Your task to perform on an android device: change alarm snooze length Image 0: 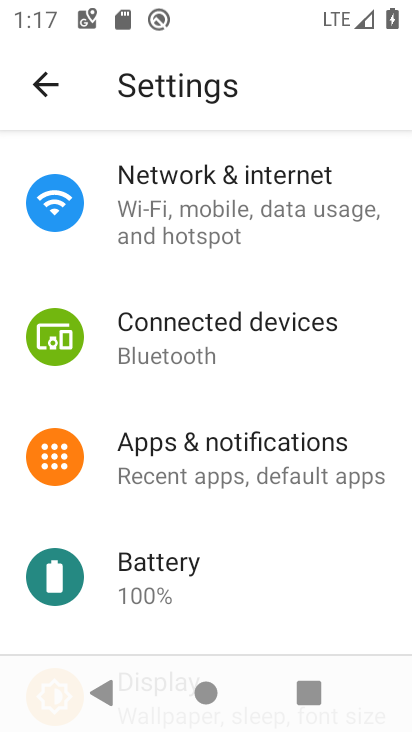
Step 0: press home button
Your task to perform on an android device: change alarm snooze length Image 1: 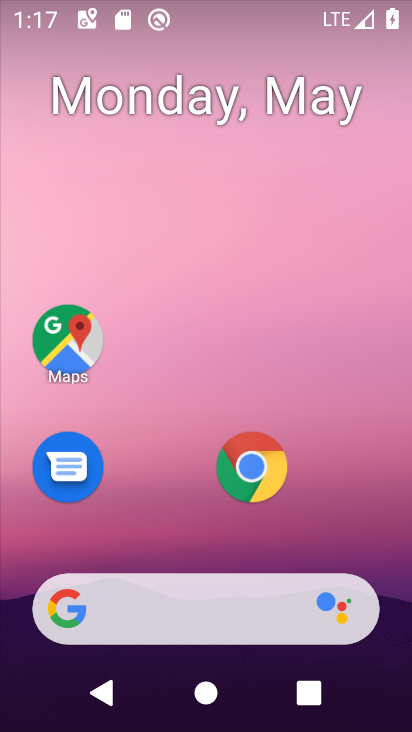
Step 1: drag from (187, 515) to (85, 21)
Your task to perform on an android device: change alarm snooze length Image 2: 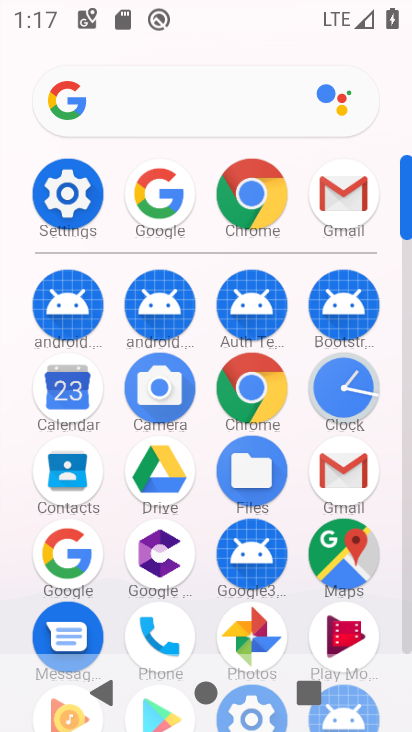
Step 2: click (336, 397)
Your task to perform on an android device: change alarm snooze length Image 3: 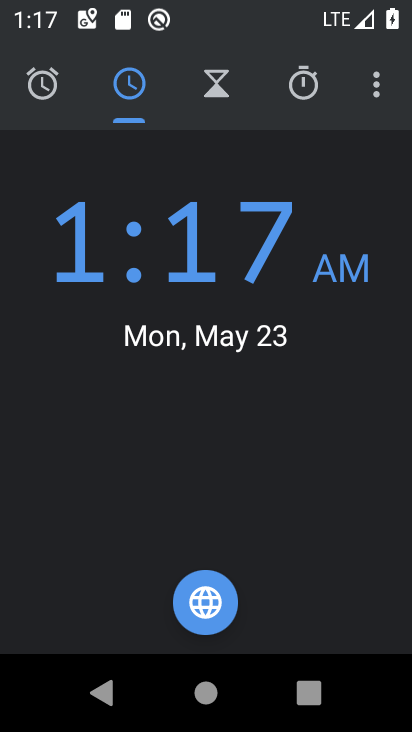
Step 3: click (371, 81)
Your task to perform on an android device: change alarm snooze length Image 4: 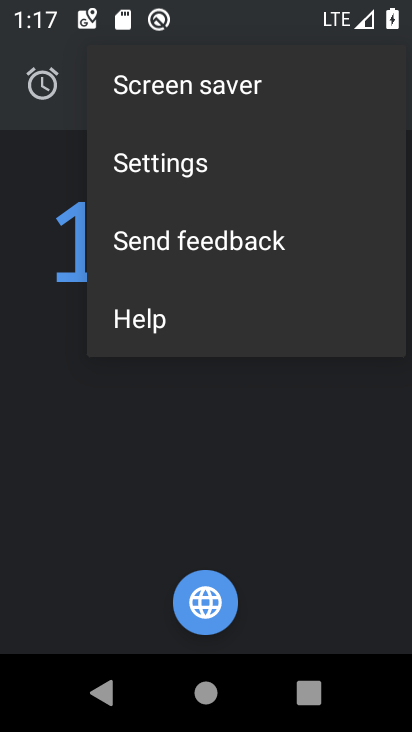
Step 4: click (248, 153)
Your task to perform on an android device: change alarm snooze length Image 5: 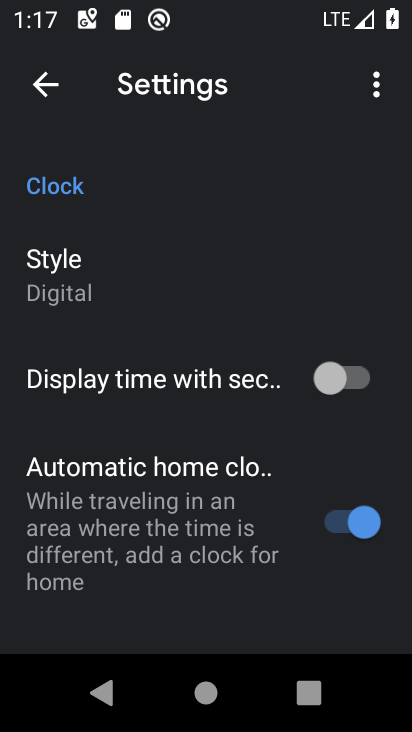
Step 5: drag from (228, 515) to (303, 116)
Your task to perform on an android device: change alarm snooze length Image 6: 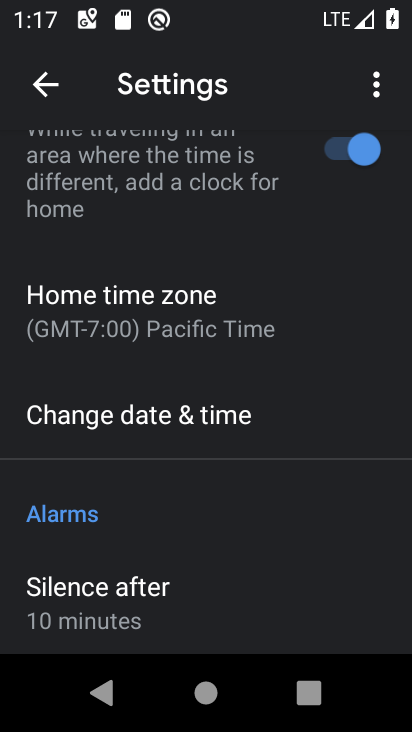
Step 6: drag from (202, 544) to (195, 174)
Your task to perform on an android device: change alarm snooze length Image 7: 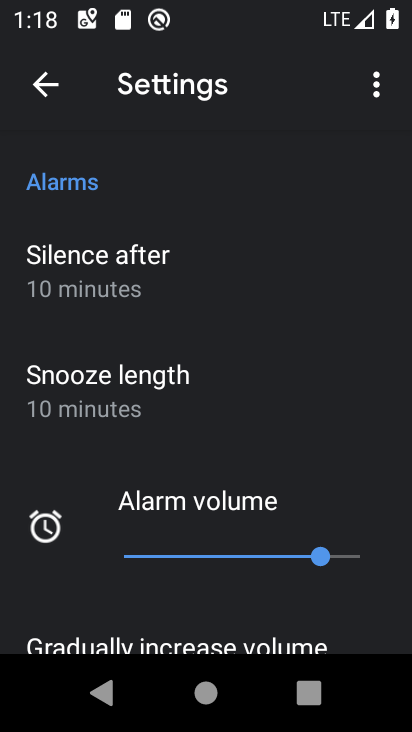
Step 7: click (158, 399)
Your task to perform on an android device: change alarm snooze length Image 8: 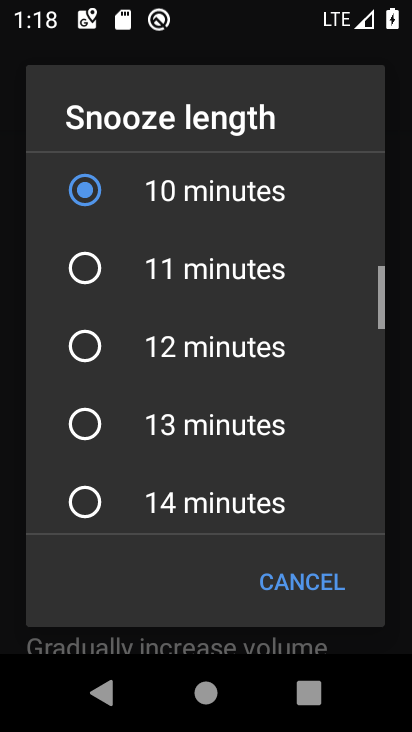
Step 8: click (179, 359)
Your task to perform on an android device: change alarm snooze length Image 9: 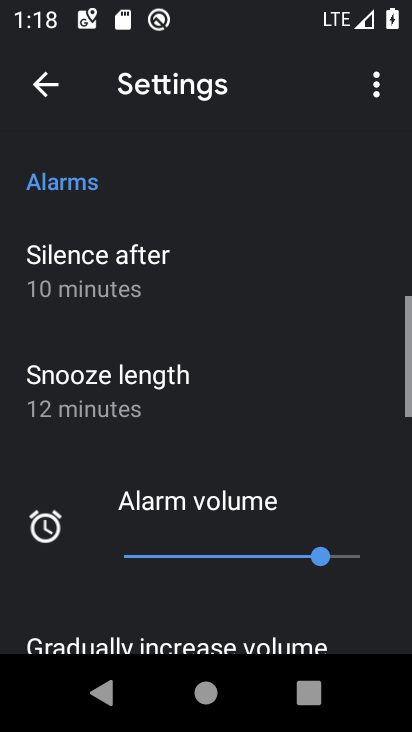
Step 9: task complete